Your task to perform on an android device: Open Android settings Image 0: 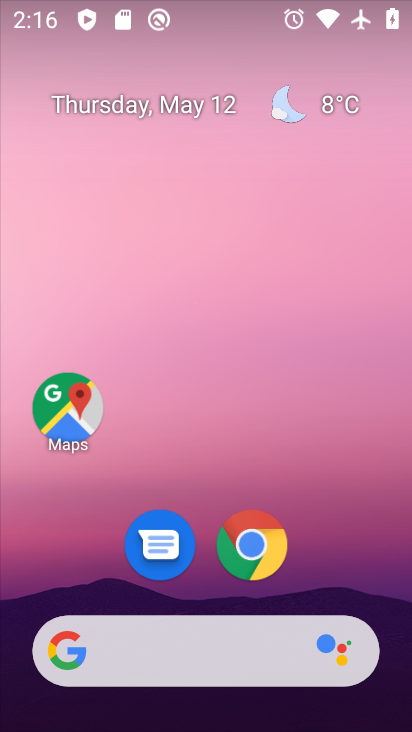
Step 0: drag from (358, 519) to (288, 113)
Your task to perform on an android device: Open Android settings Image 1: 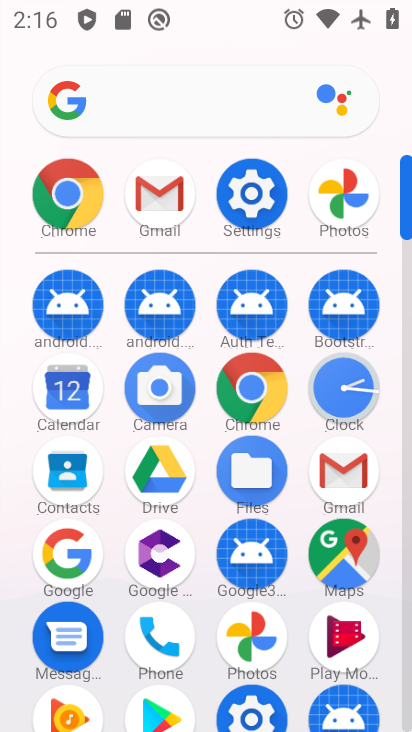
Step 1: click (409, 701)
Your task to perform on an android device: Open Android settings Image 2: 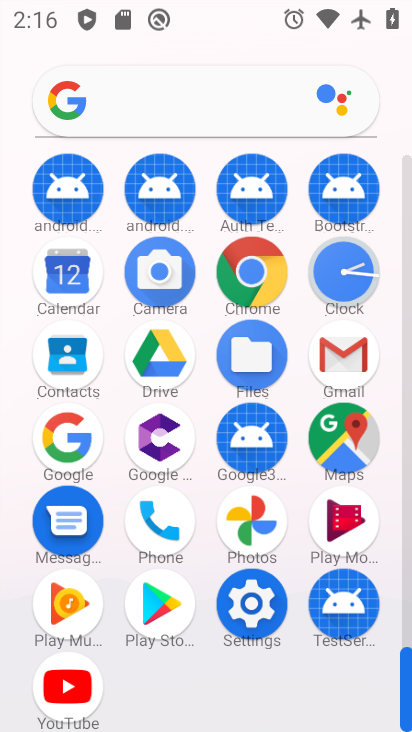
Step 2: click (253, 598)
Your task to perform on an android device: Open Android settings Image 3: 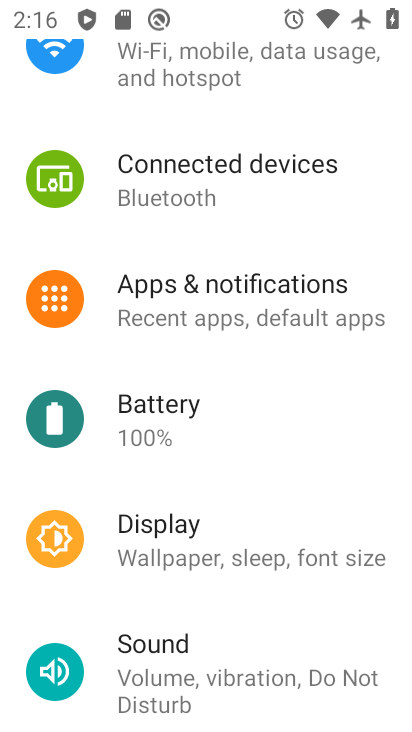
Step 3: drag from (357, 656) to (307, 355)
Your task to perform on an android device: Open Android settings Image 4: 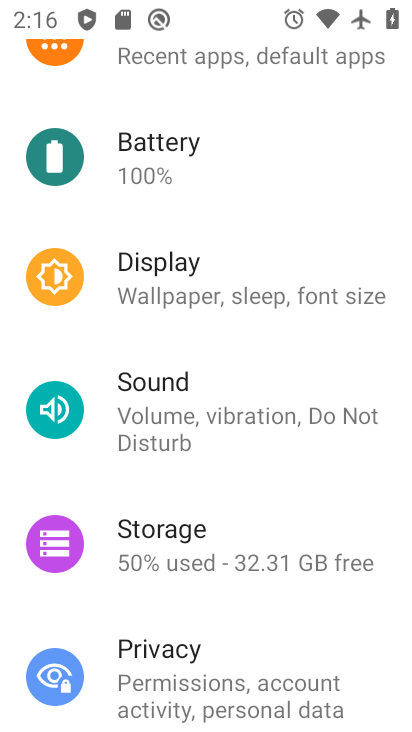
Step 4: drag from (334, 614) to (306, 300)
Your task to perform on an android device: Open Android settings Image 5: 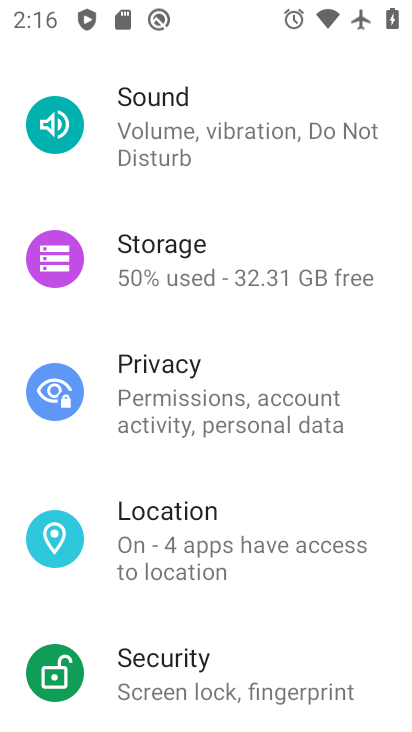
Step 5: drag from (321, 603) to (307, 242)
Your task to perform on an android device: Open Android settings Image 6: 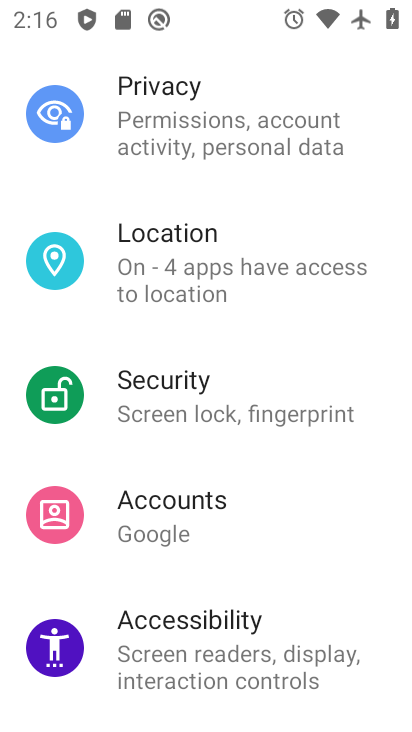
Step 6: drag from (342, 634) to (276, 151)
Your task to perform on an android device: Open Android settings Image 7: 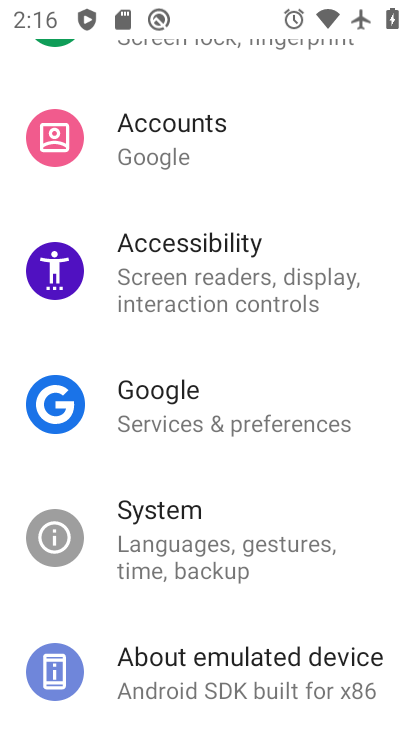
Step 7: click (186, 683)
Your task to perform on an android device: Open Android settings Image 8: 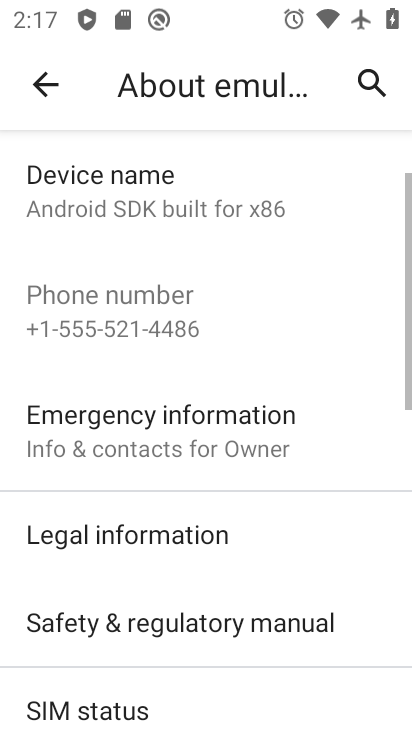
Step 8: task complete